Your task to perform on an android device: see creations saved in the google photos Image 0: 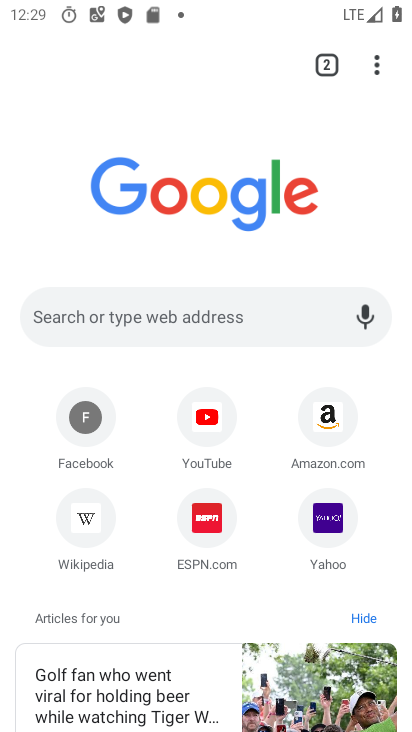
Step 0: press home button
Your task to perform on an android device: see creations saved in the google photos Image 1: 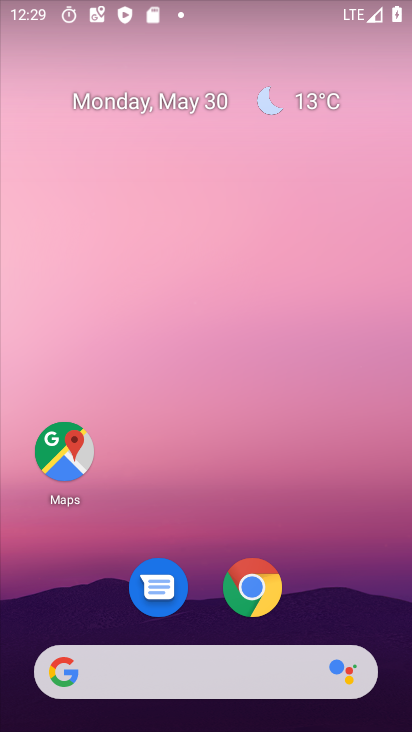
Step 1: drag from (369, 524) to (315, 118)
Your task to perform on an android device: see creations saved in the google photos Image 2: 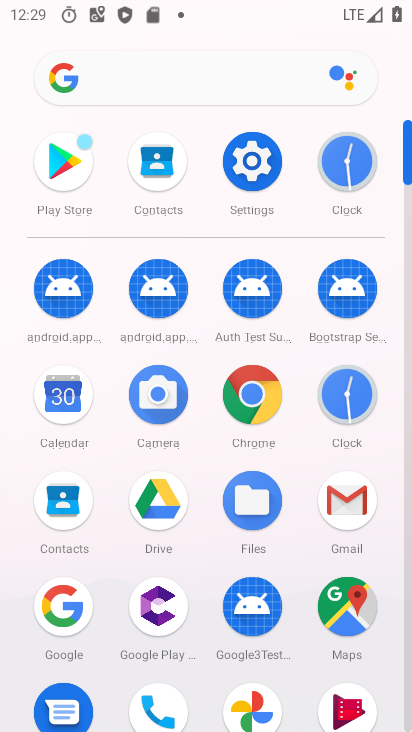
Step 2: click (254, 704)
Your task to perform on an android device: see creations saved in the google photos Image 3: 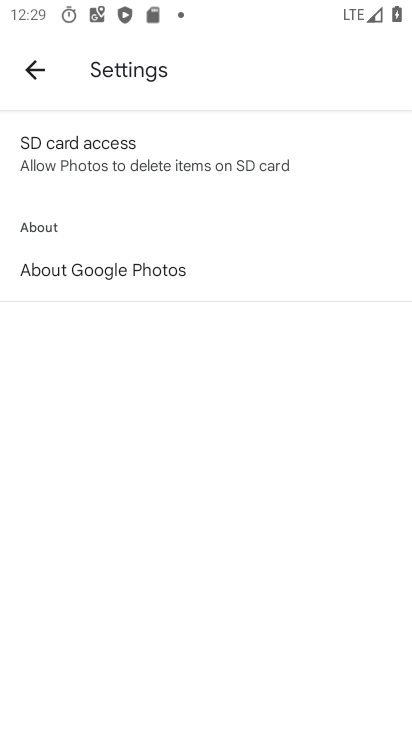
Step 3: click (30, 75)
Your task to perform on an android device: see creations saved in the google photos Image 4: 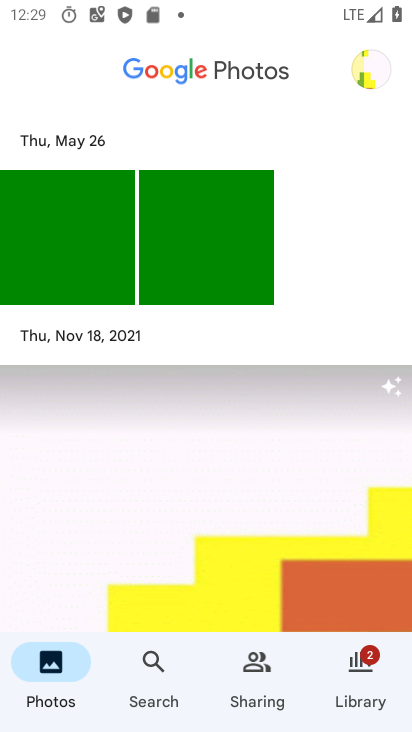
Step 4: click (32, 73)
Your task to perform on an android device: see creations saved in the google photos Image 5: 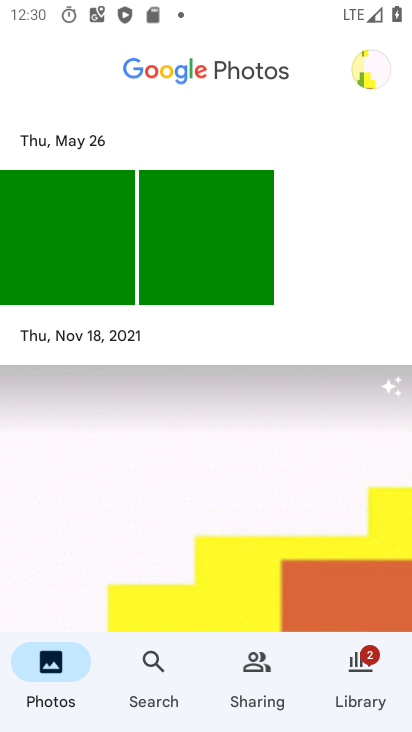
Step 5: click (337, 658)
Your task to perform on an android device: see creations saved in the google photos Image 6: 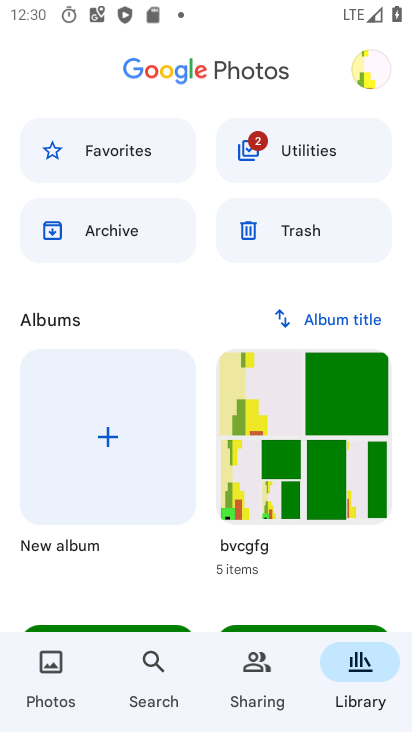
Step 6: task complete